Your task to perform on an android device: delete a single message in the gmail app Image 0: 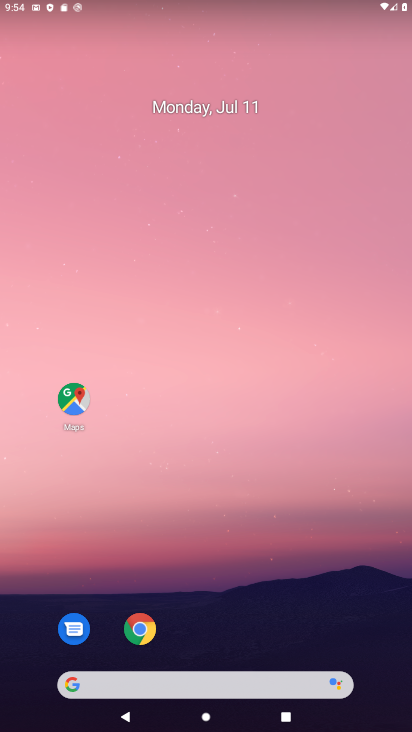
Step 0: drag from (217, 630) to (217, 192)
Your task to perform on an android device: delete a single message in the gmail app Image 1: 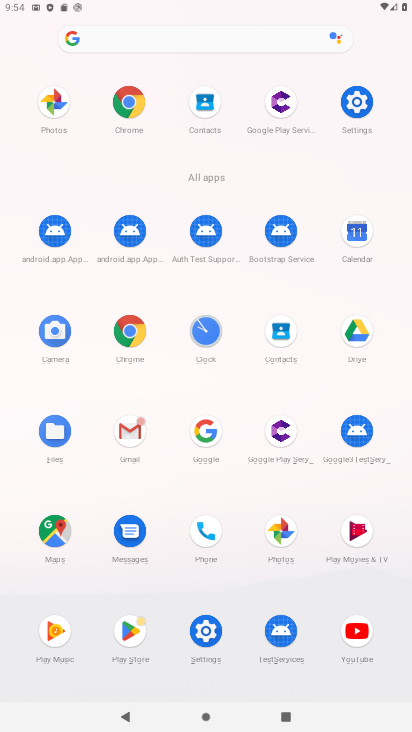
Step 1: click (128, 428)
Your task to perform on an android device: delete a single message in the gmail app Image 2: 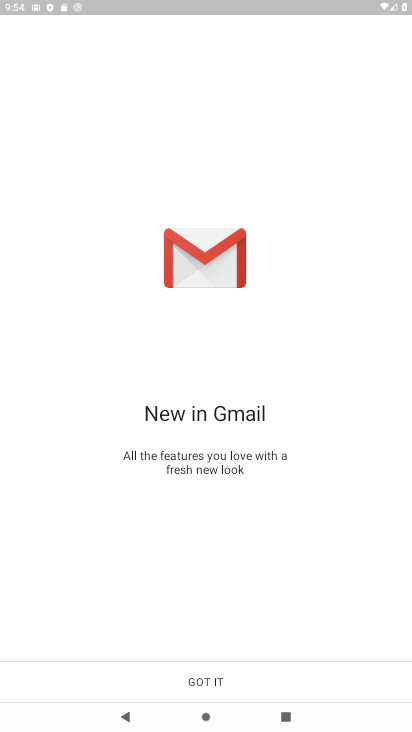
Step 2: click (245, 684)
Your task to perform on an android device: delete a single message in the gmail app Image 3: 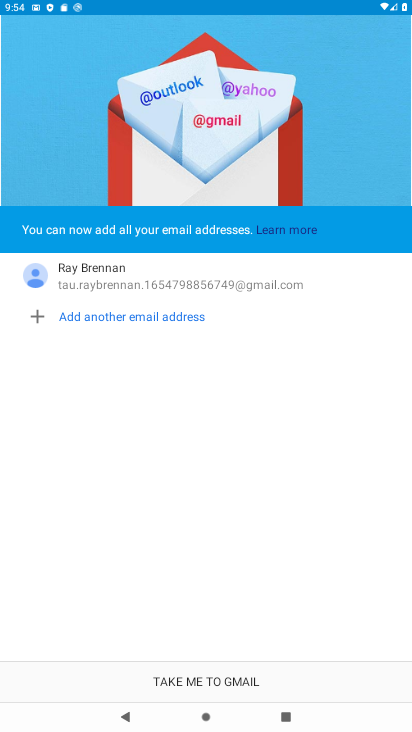
Step 3: click (245, 684)
Your task to perform on an android device: delete a single message in the gmail app Image 4: 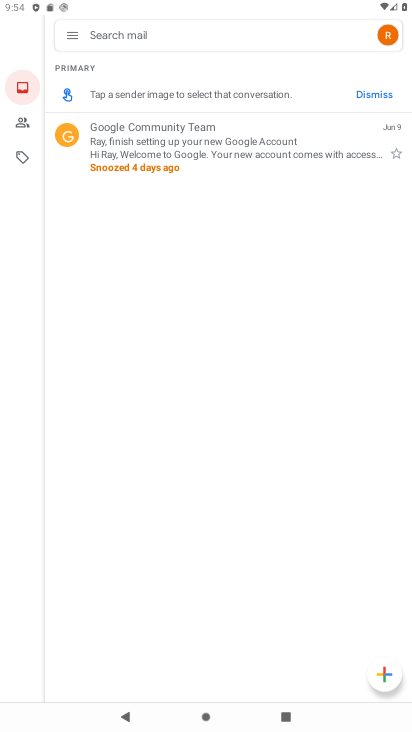
Step 4: click (151, 129)
Your task to perform on an android device: delete a single message in the gmail app Image 5: 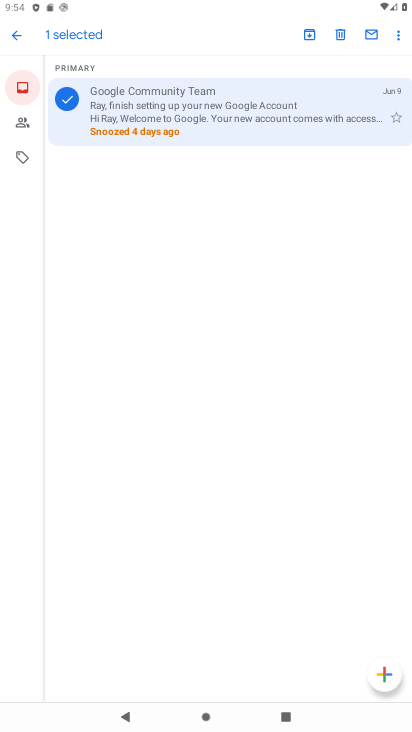
Step 5: click (347, 37)
Your task to perform on an android device: delete a single message in the gmail app Image 6: 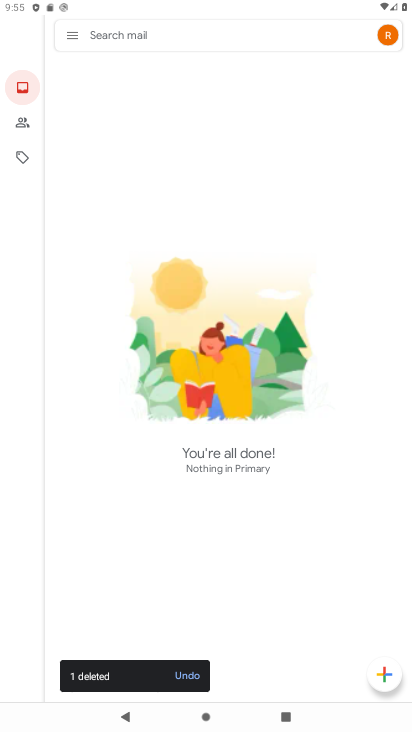
Step 6: task complete